Your task to perform on an android device: Search for Italian restaurants on Maps Image 0: 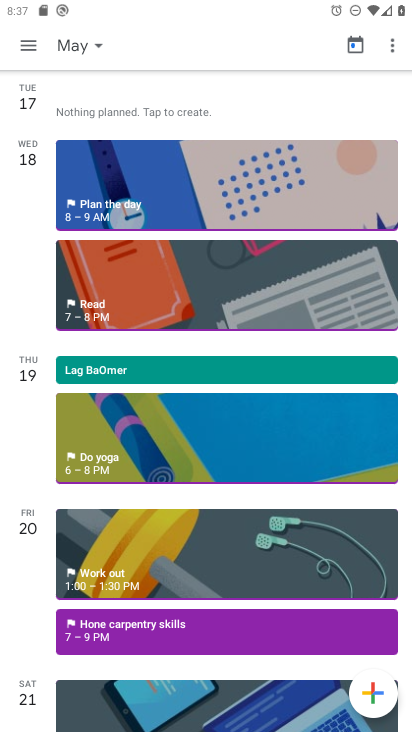
Step 0: press home button
Your task to perform on an android device: Search for Italian restaurants on Maps Image 1: 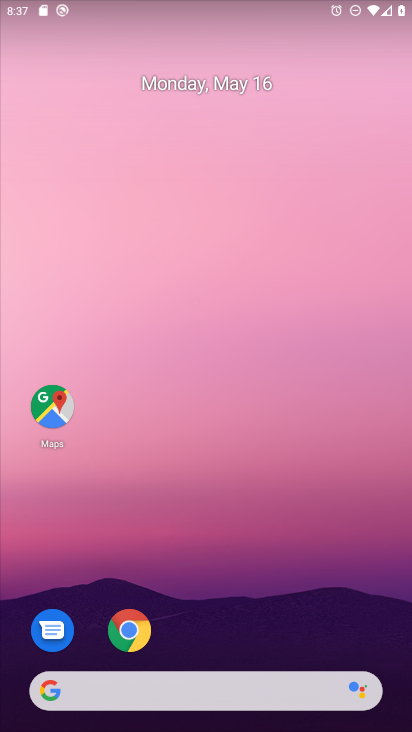
Step 1: click (64, 401)
Your task to perform on an android device: Search for Italian restaurants on Maps Image 2: 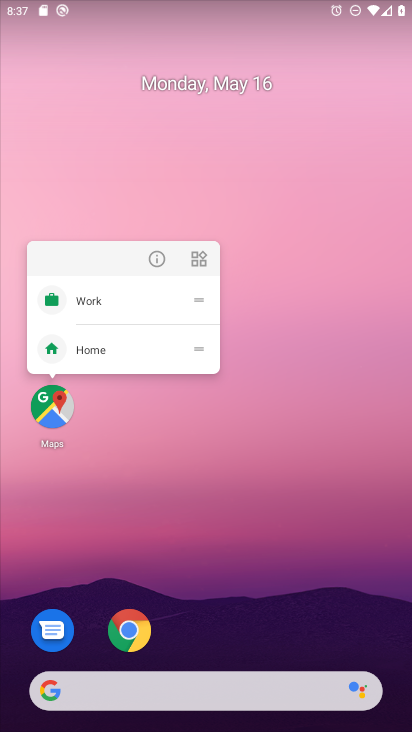
Step 2: click (65, 399)
Your task to perform on an android device: Search for Italian restaurants on Maps Image 3: 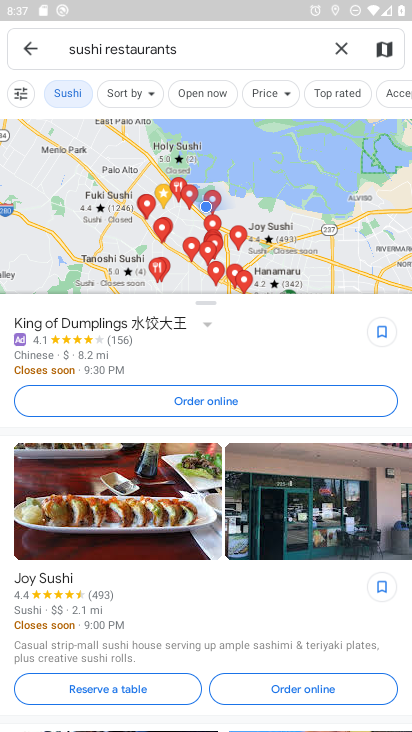
Step 3: click (342, 36)
Your task to perform on an android device: Search for Italian restaurants on Maps Image 4: 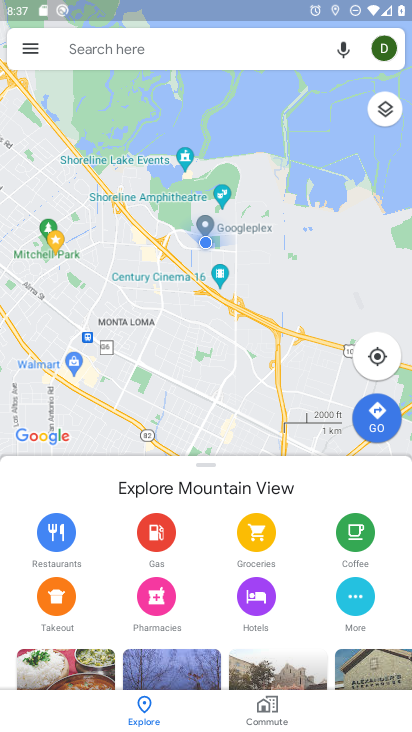
Step 4: click (230, 36)
Your task to perform on an android device: Search for Italian restaurants on Maps Image 5: 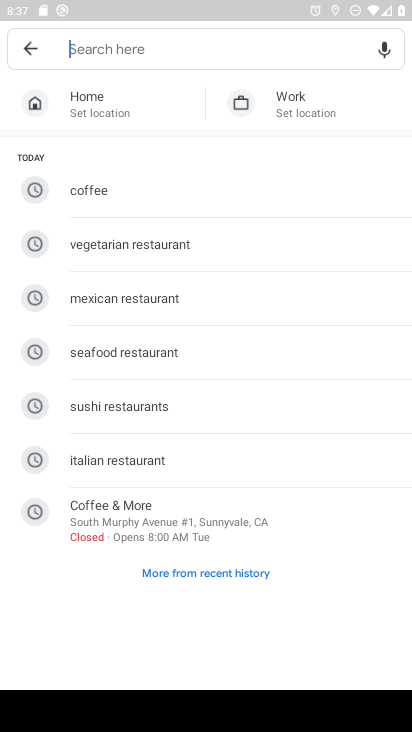
Step 5: drag from (92, 424) to (92, 461)
Your task to perform on an android device: Search for Italian restaurants on Maps Image 6: 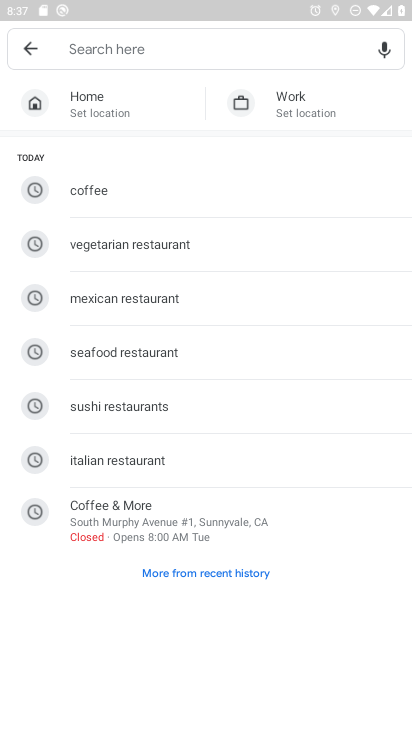
Step 6: click (92, 461)
Your task to perform on an android device: Search for Italian restaurants on Maps Image 7: 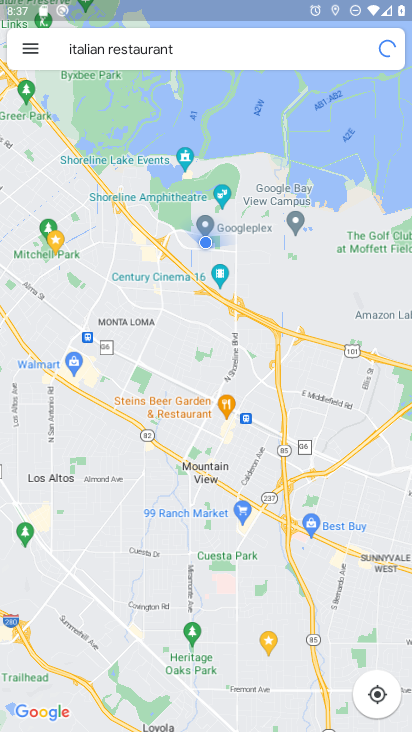
Step 7: click (92, 461)
Your task to perform on an android device: Search for Italian restaurants on Maps Image 8: 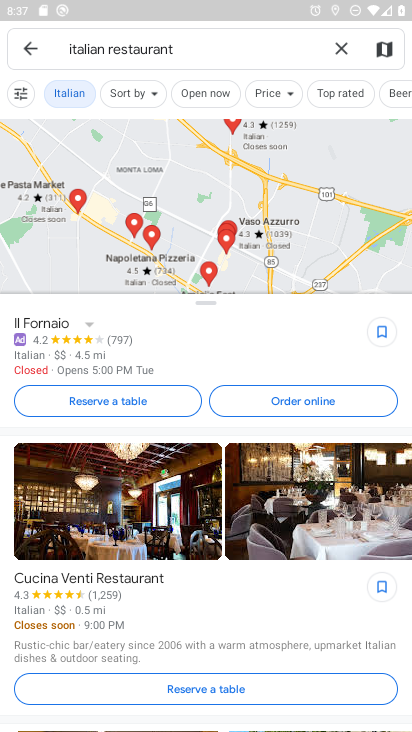
Step 8: task complete